Your task to perform on an android device: set an alarm Image 0: 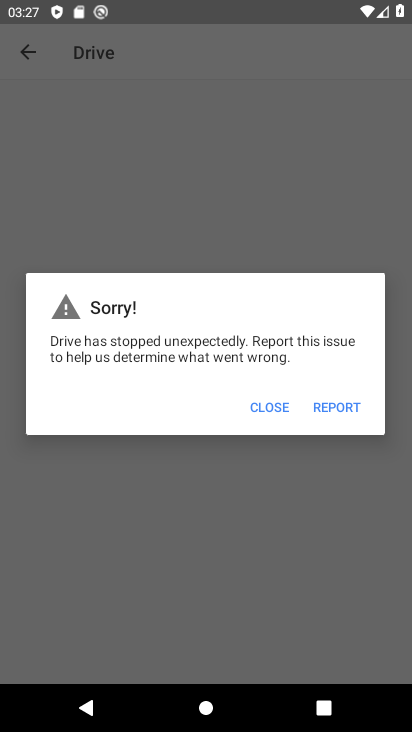
Step 0: press home button
Your task to perform on an android device: set an alarm Image 1: 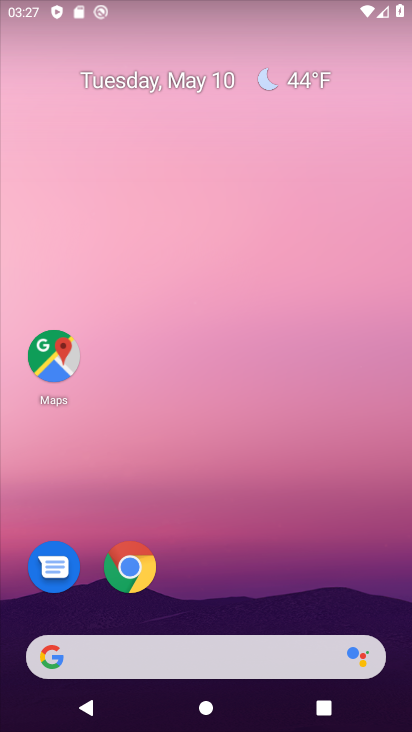
Step 1: drag from (290, 577) to (299, 10)
Your task to perform on an android device: set an alarm Image 2: 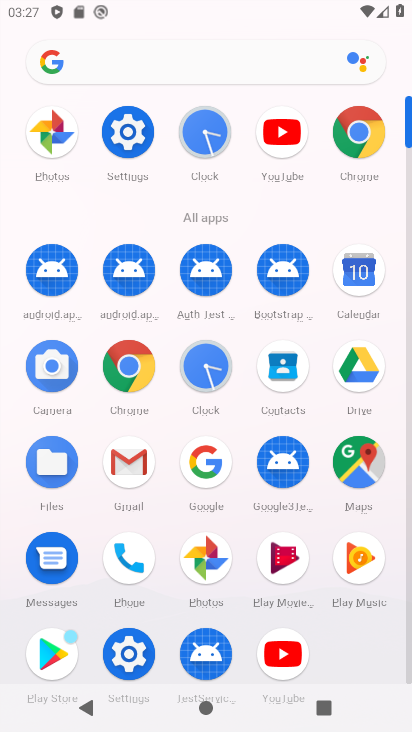
Step 2: click (207, 364)
Your task to perform on an android device: set an alarm Image 3: 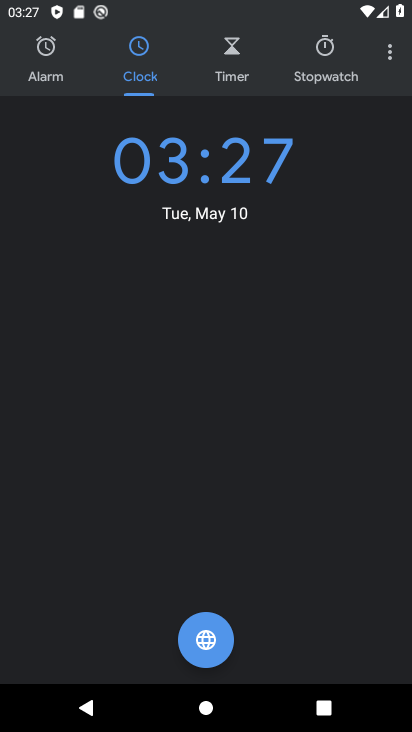
Step 3: click (43, 62)
Your task to perform on an android device: set an alarm Image 4: 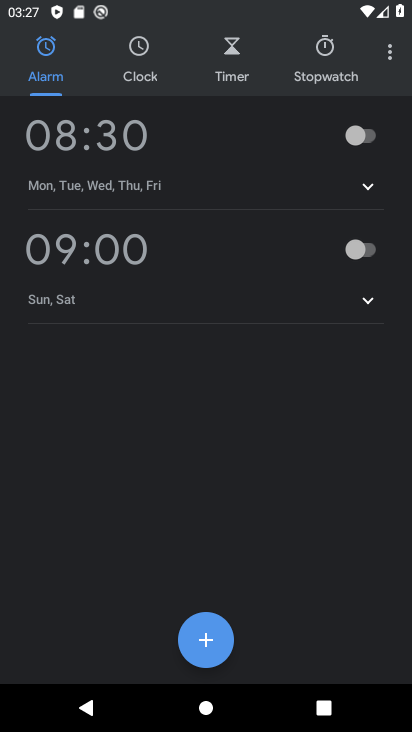
Step 4: click (360, 124)
Your task to perform on an android device: set an alarm Image 5: 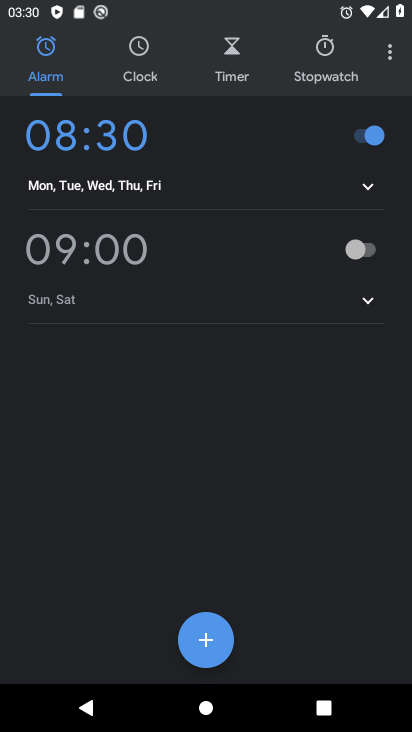
Step 5: task complete